Your task to perform on an android device: toggle location history Image 0: 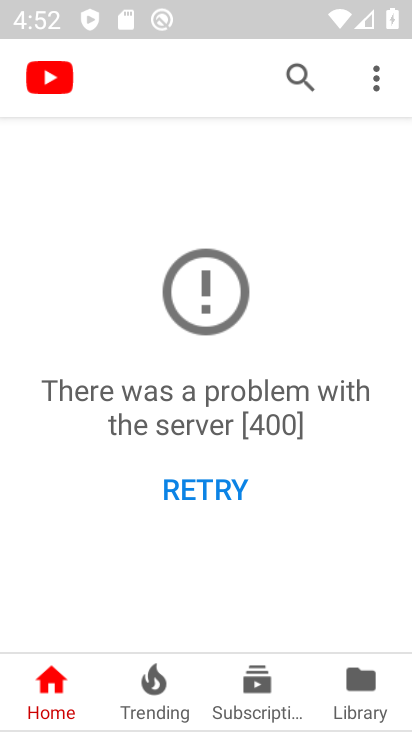
Step 0: press home button
Your task to perform on an android device: toggle location history Image 1: 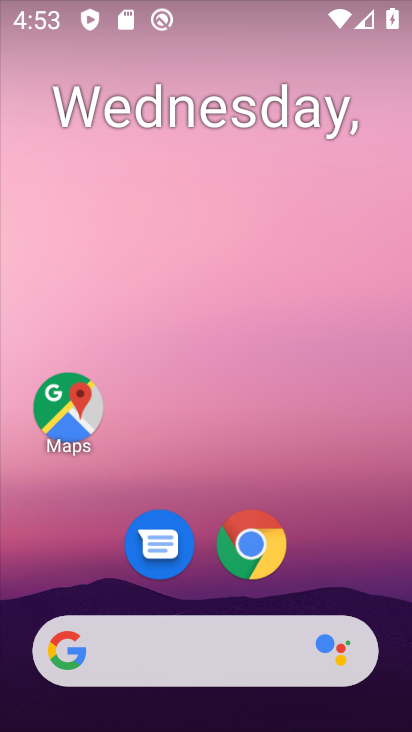
Step 1: drag from (147, 600) to (149, 184)
Your task to perform on an android device: toggle location history Image 2: 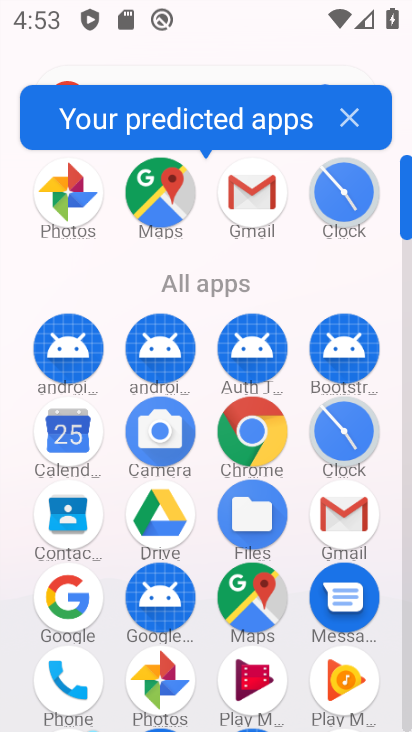
Step 2: drag from (239, 600) to (237, 274)
Your task to perform on an android device: toggle location history Image 3: 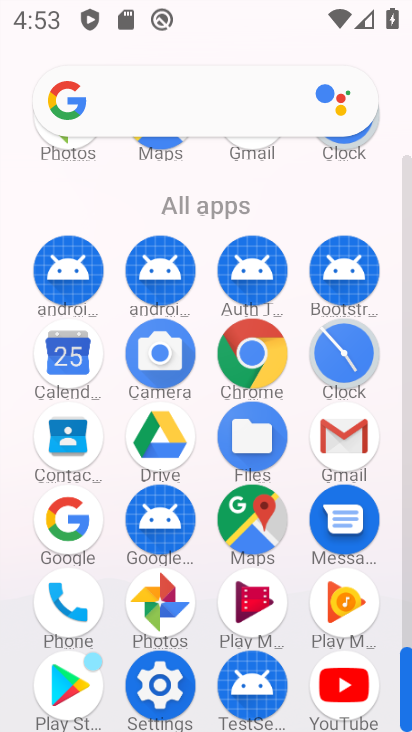
Step 3: drag from (193, 586) to (211, 213)
Your task to perform on an android device: toggle location history Image 4: 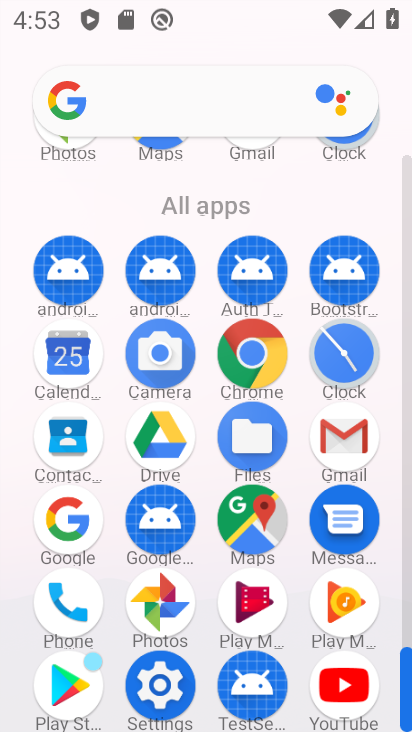
Step 4: click (167, 693)
Your task to perform on an android device: toggle location history Image 5: 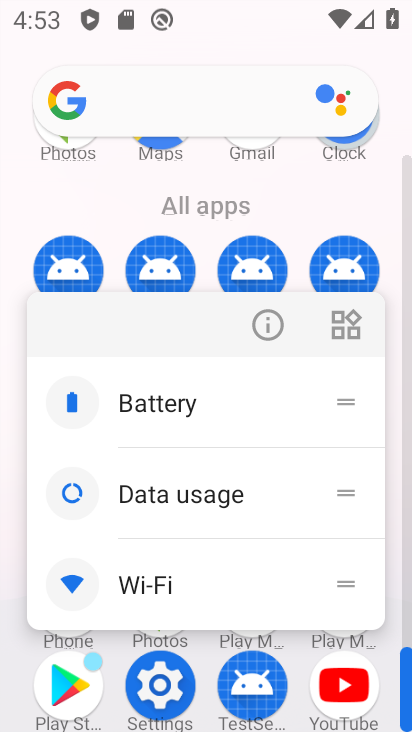
Step 5: click (164, 689)
Your task to perform on an android device: toggle location history Image 6: 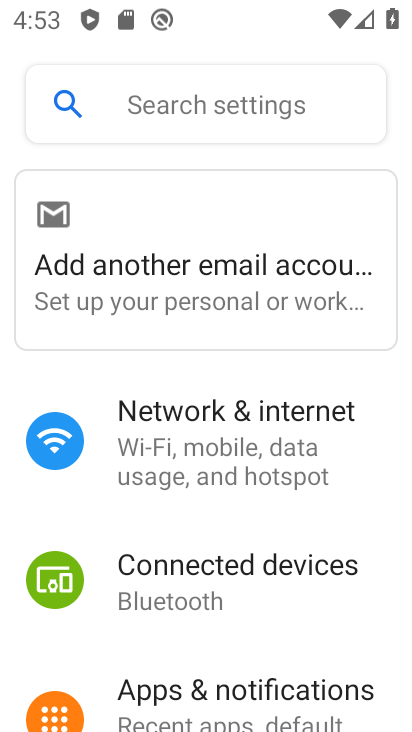
Step 6: drag from (240, 676) to (232, 358)
Your task to perform on an android device: toggle location history Image 7: 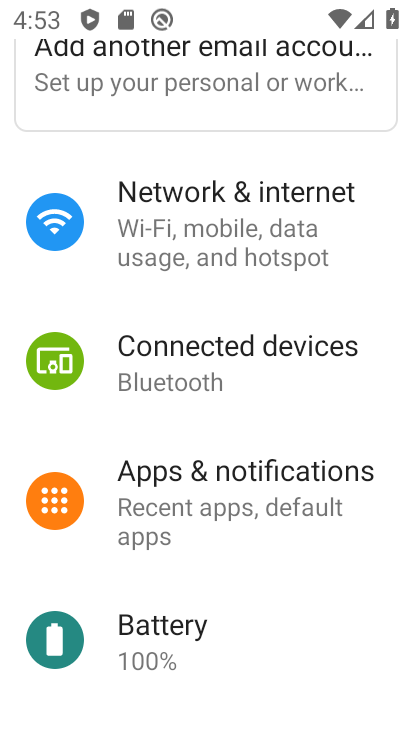
Step 7: drag from (194, 675) to (176, 290)
Your task to perform on an android device: toggle location history Image 8: 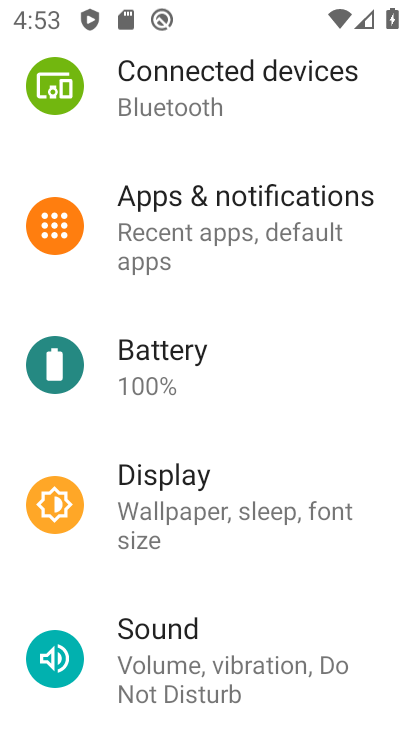
Step 8: drag from (179, 652) to (187, 297)
Your task to perform on an android device: toggle location history Image 9: 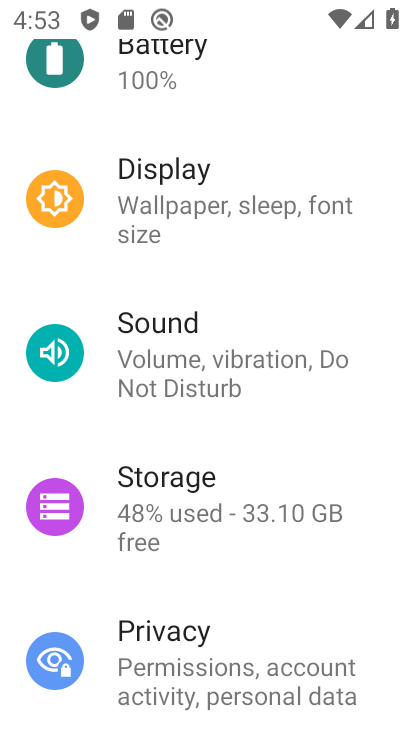
Step 9: drag from (223, 694) to (244, 428)
Your task to perform on an android device: toggle location history Image 10: 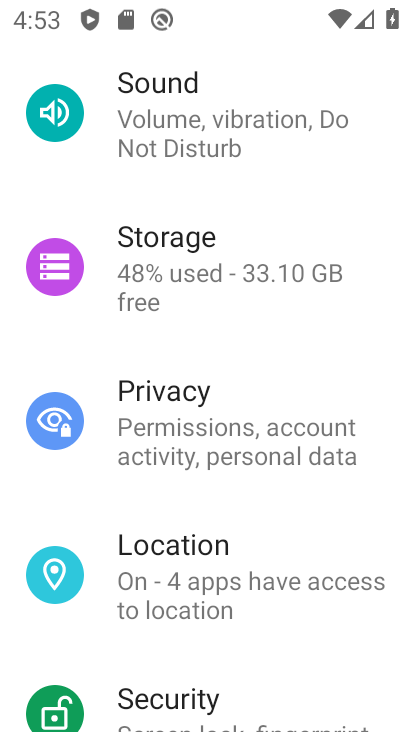
Step 10: click (211, 583)
Your task to perform on an android device: toggle location history Image 11: 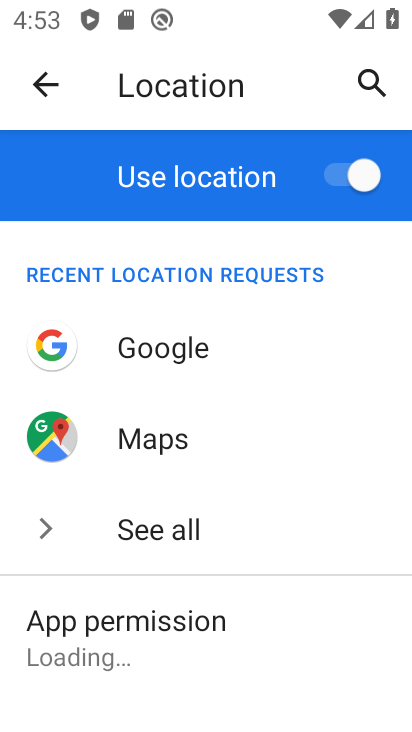
Step 11: drag from (301, 712) to (306, 274)
Your task to perform on an android device: toggle location history Image 12: 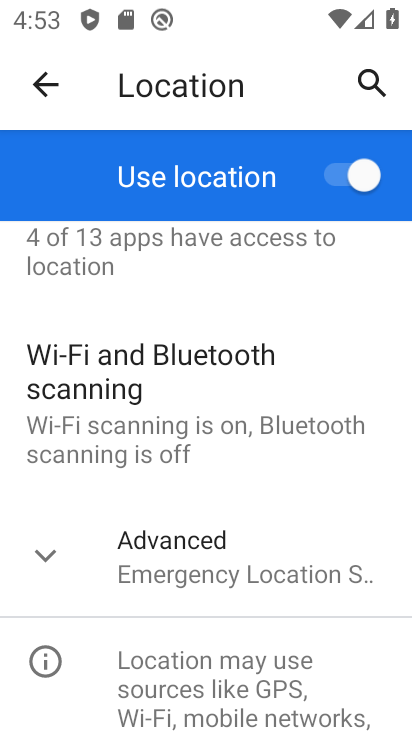
Step 12: click (136, 400)
Your task to perform on an android device: toggle location history Image 13: 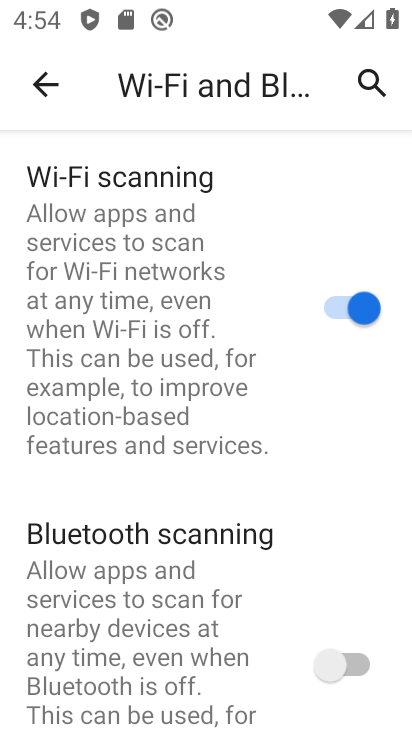
Step 13: press back button
Your task to perform on an android device: toggle location history Image 14: 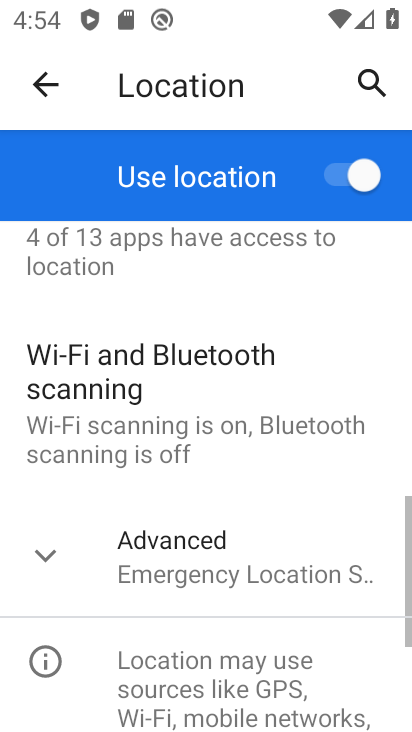
Step 14: click (214, 580)
Your task to perform on an android device: toggle location history Image 15: 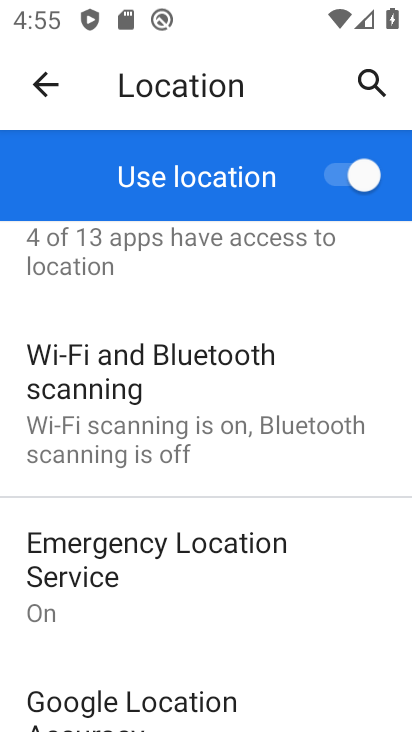
Step 15: drag from (202, 692) to (172, 393)
Your task to perform on an android device: toggle location history Image 16: 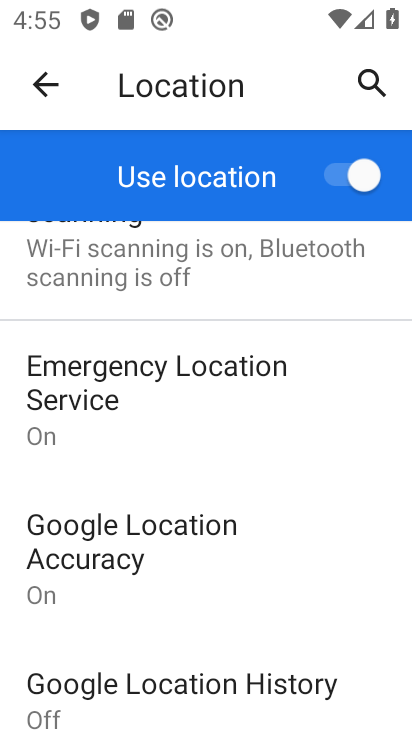
Step 16: drag from (198, 712) to (176, 483)
Your task to perform on an android device: toggle location history Image 17: 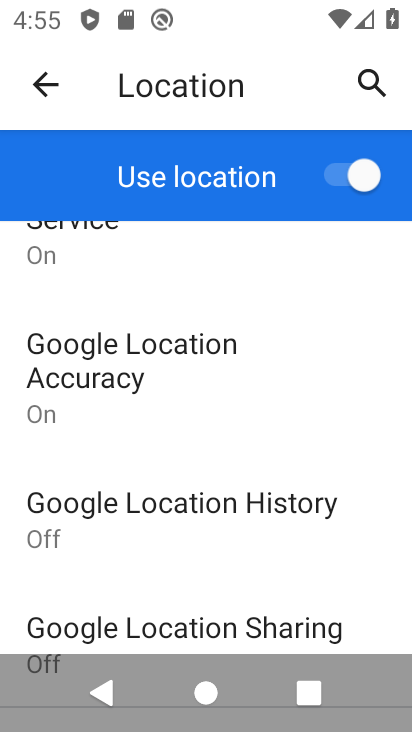
Step 17: click (278, 492)
Your task to perform on an android device: toggle location history Image 18: 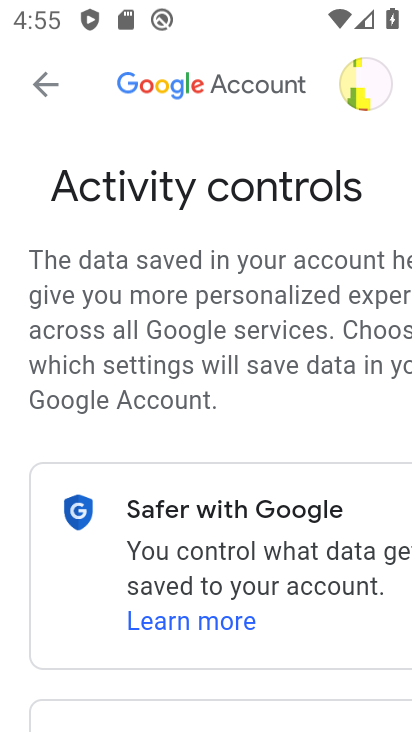
Step 18: drag from (238, 667) to (247, 255)
Your task to perform on an android device: toggle location history Image 19: 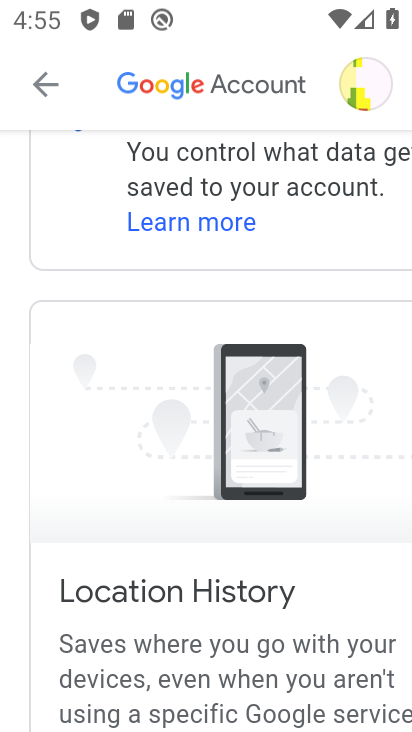
Step 19: drag from (242, 525) to (242, 233)
Your task to perform on an android device: toggle location history Image 20: 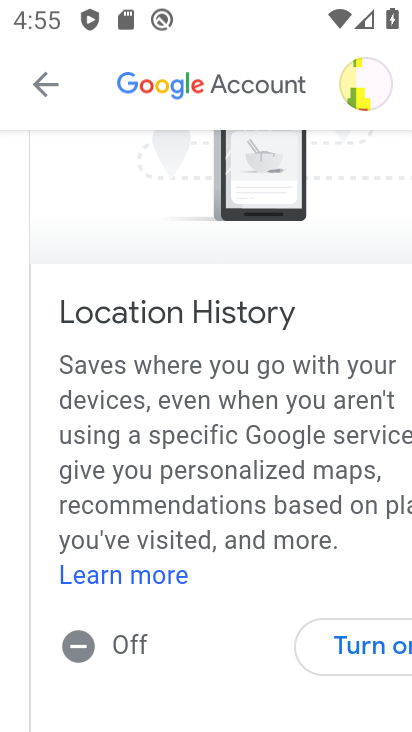
Step 20: click (349, 655)
Your task to perform on an android device: toggle location history Image 21: 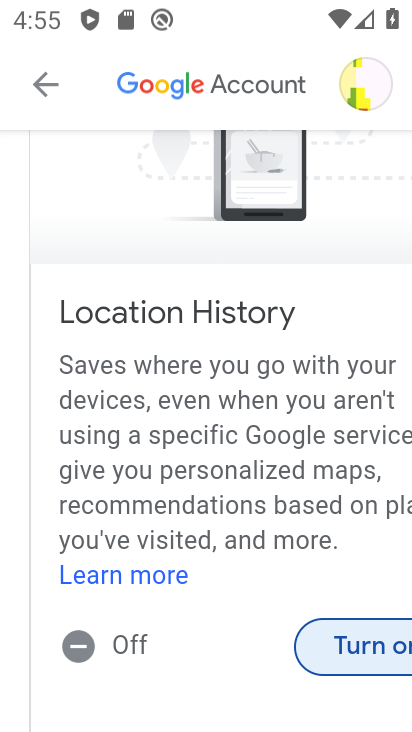
Step 21: click (331, 651)
Your task to perform on an android device: toggle location history Image 22: 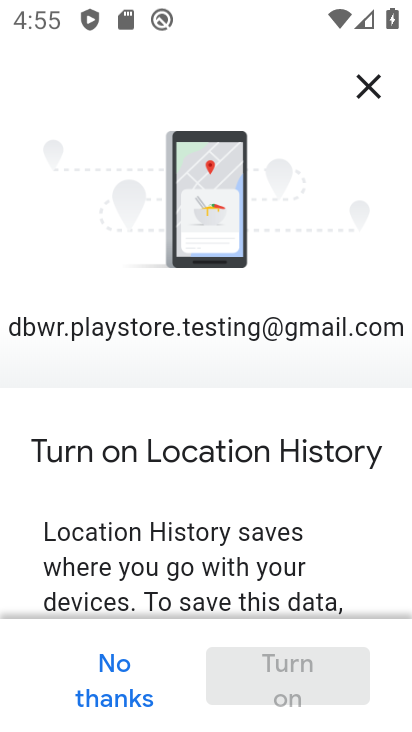
Step 22: drag from (306, 597) to (302, 165)
Your task to perform on an android device: toggle location history Image 23: 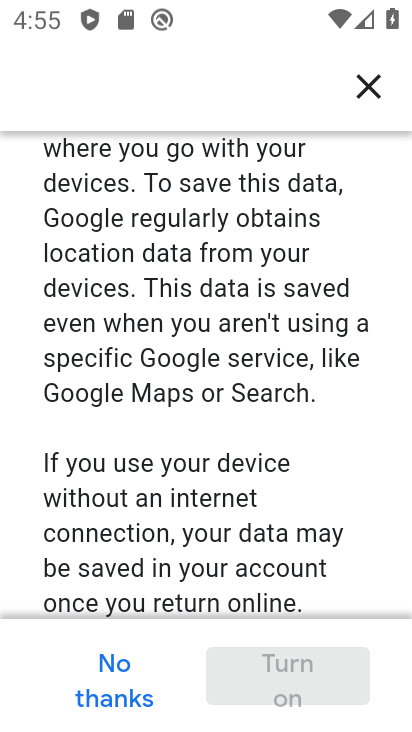
Step 23: drag from (297, 569) to (309, 139)
Your task to perform on an android device: toggle location history Image 24: 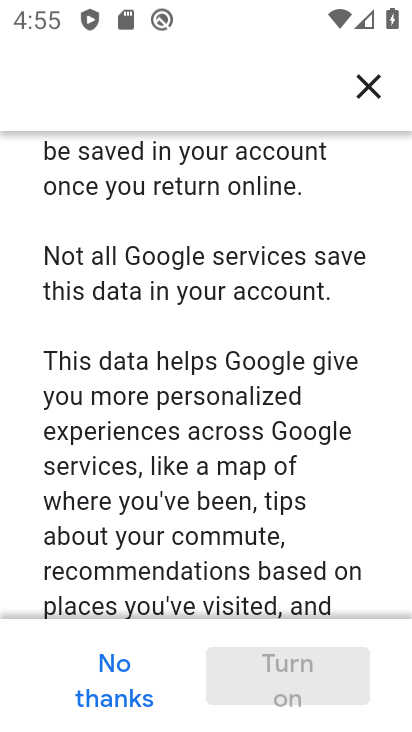
Step 24: drag from (282, 562) to (329, 131)
Your task to perform on an android device: toggle location history Image 25: 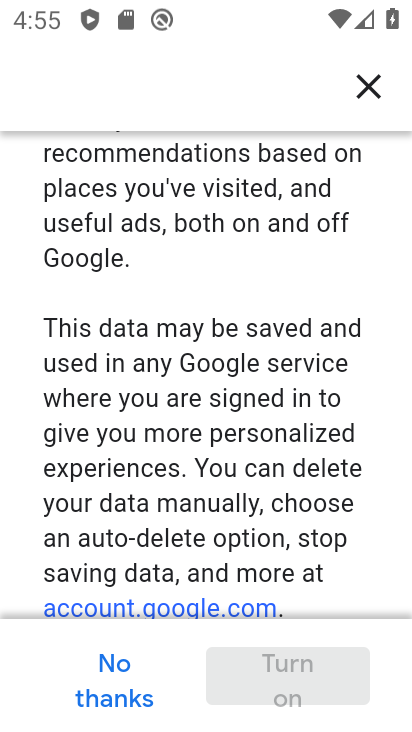
Step 25: drag from (282, 592) to (298, 326)
Your task to perform on an android device: toggle location history Image 26: 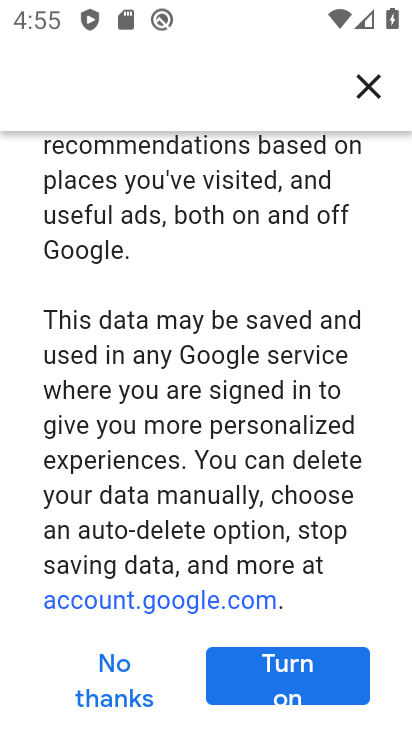
Step 26: drag from (298, 613) to (325, 318)
Your task to perform on an android device: toggle location history Image 27: 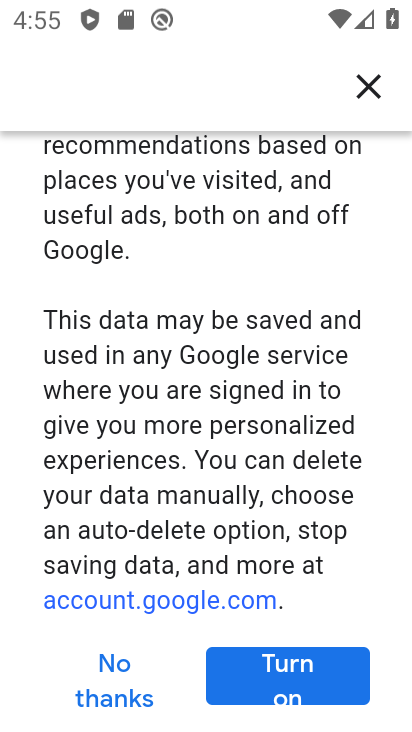
Step 27: click (293, 679)
Your task to perform on an android device: toggle location history Image 28: 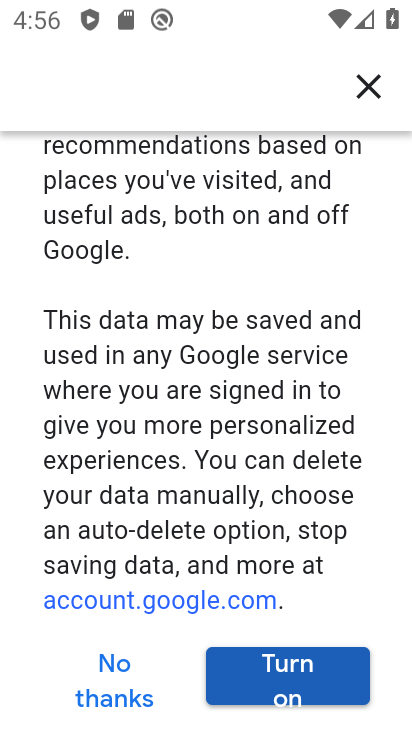
Step 28: click (301, 666)
Your task to perform on an android device: toggle location history Image 29: 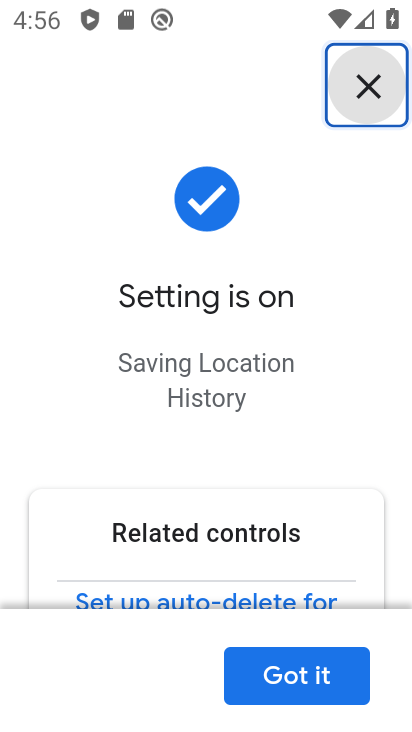
Step 29: click (326, 681)
Your task to perform on an android device: toggle location history Image 30: 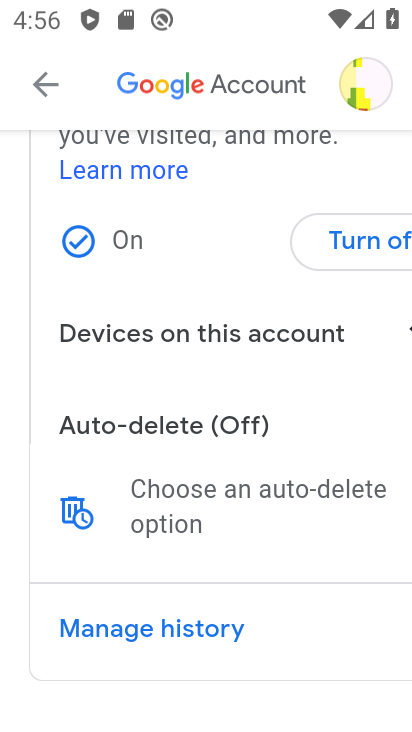
Step 30: task complete